Your task to perform on an android device: Open maps Image 0: 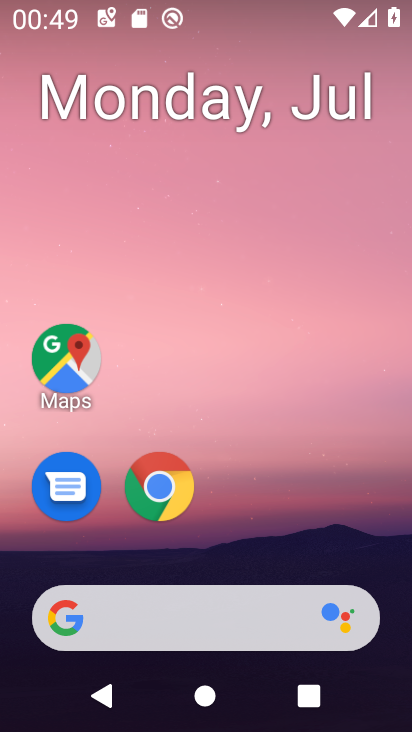
Step 0: press home button
Your task to perform on an android device: Open maps Image 1: 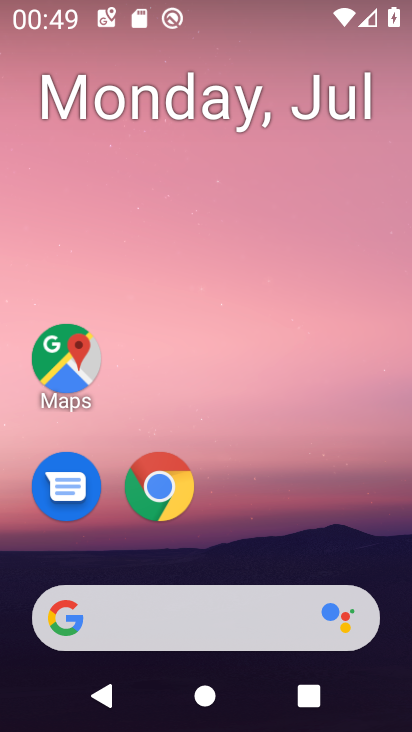
Step 1: drag from (385, 537) to (371, 146)
Your task to perform on an android device: Open maps Image 2: 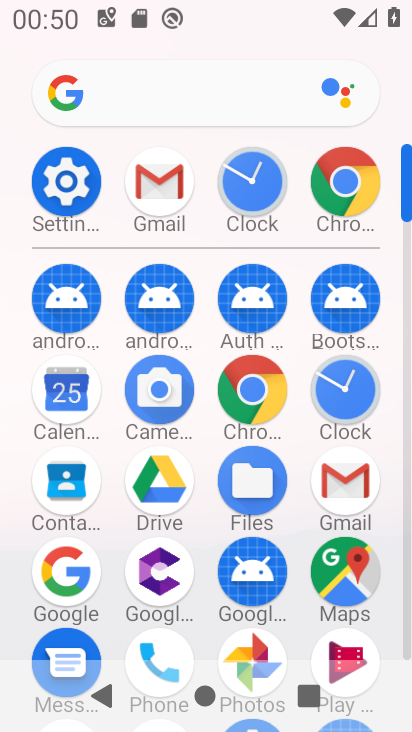
Step 2: click (339, 564)
Your task to perform on an android device: Open maps Image 3: 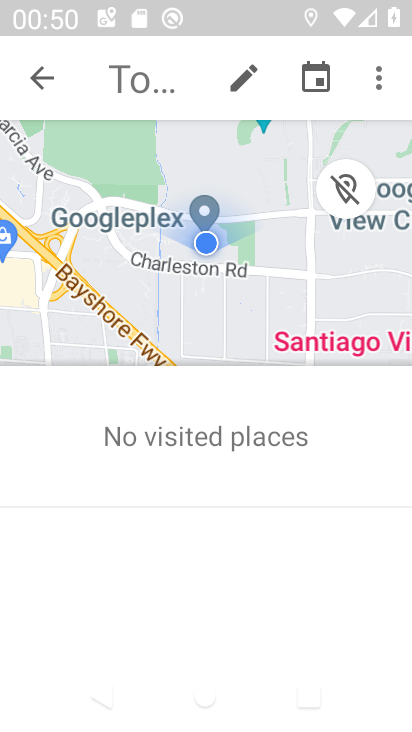
Step 3: task complete